Your task to perform on an android device: Search for pizza restaurants on Maps Image 0: 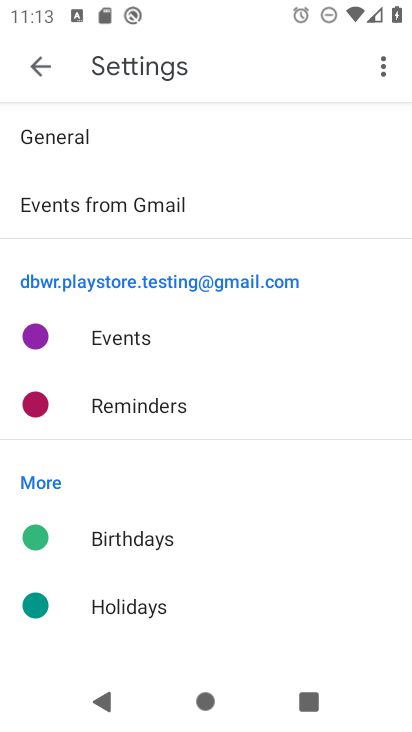
Step 0: press home button
Your task to perform on an android device: Search for pizza restaurants on Maps Image 1: 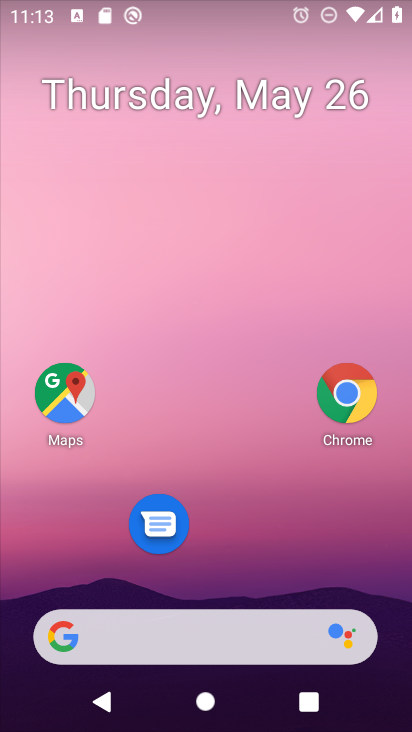
Step 1: click (69, 394)
Your task to perform on an android device: Search for pizza restaurants on Maps Image 2: 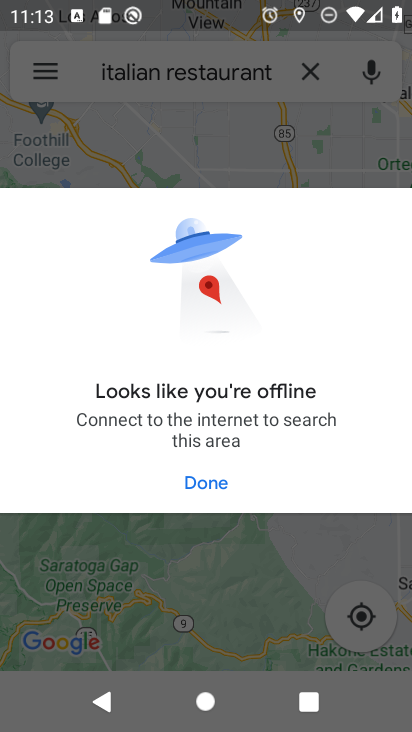
Step 2: click (204, 477)
Your task to perform on an android device: Search for pizza restaurants on Maps Image 3: 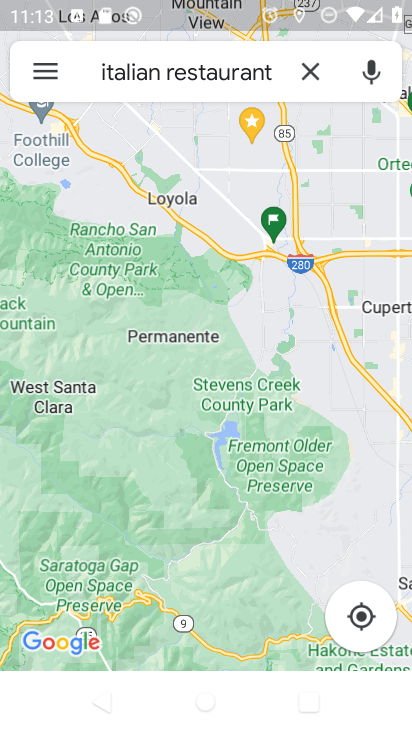
Step 3: click (307, 61)
Your task to perform on an android device: Search for pizza restaurants on Maps Image 4: 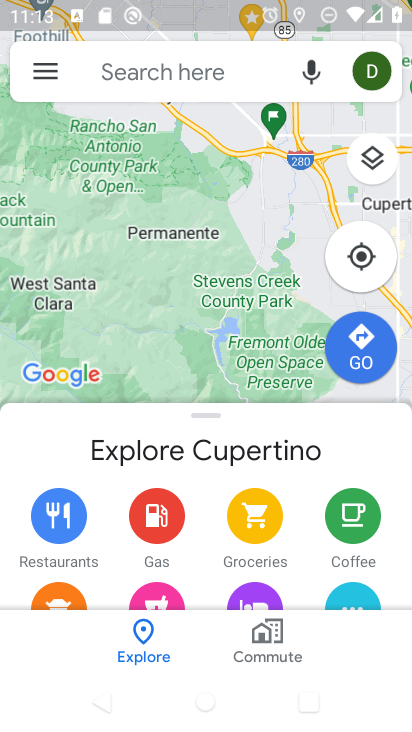
Step 4: click (202, 73)
Your task to perform on an android device: Search for pizza restaurants on Maps Image 5: 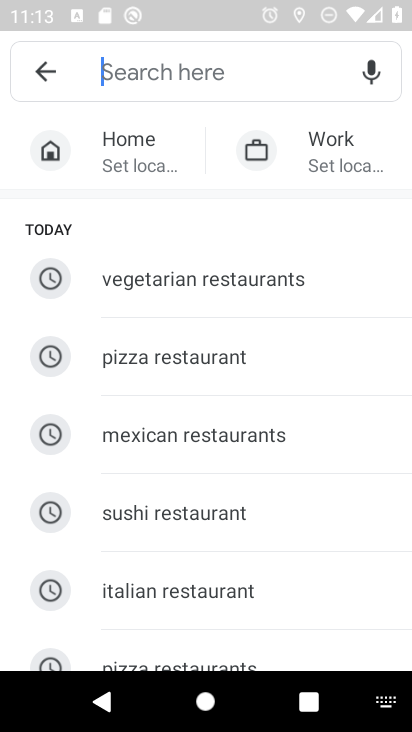
Step 5: click (193, 350)
Your task to perform on an android device: Search for pizza restaurants on Maps Image 6: 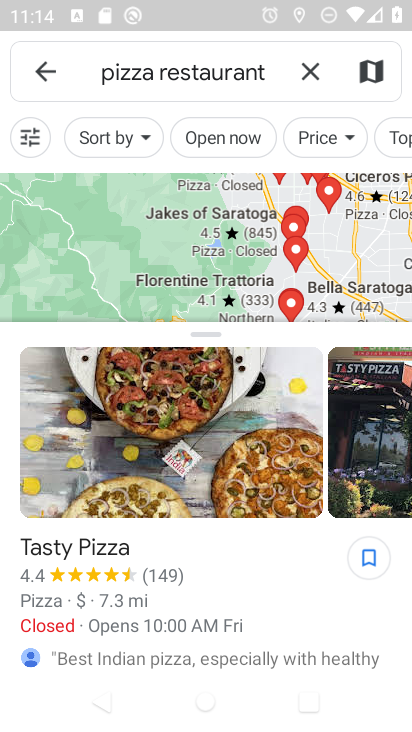
Step 6: task complete